Your task to perform on an android device: What is the news today? Image 0: 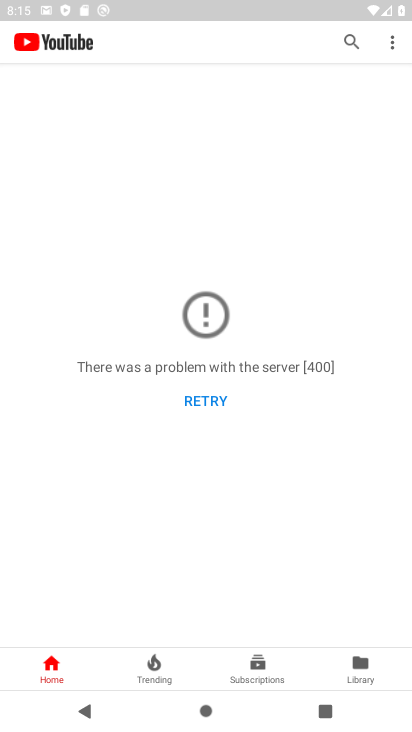
Step 0: press home button
Your task to perform on an android device: What is the news today? Image 1: 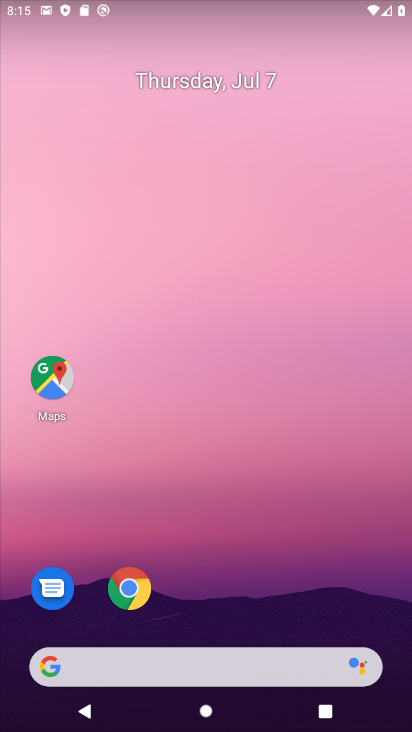
Step 1: click (238, 672)
Your task to perform on an android device: What is the news today? Image 2: 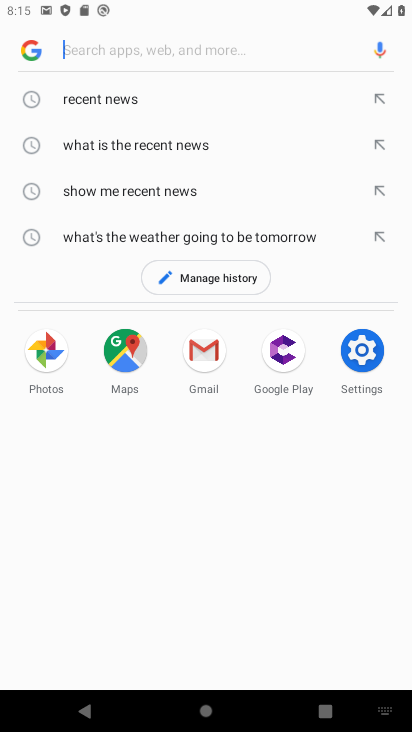
Step 2: type "news today"
Your task to perform on an android device: What is the news today? Image 3: 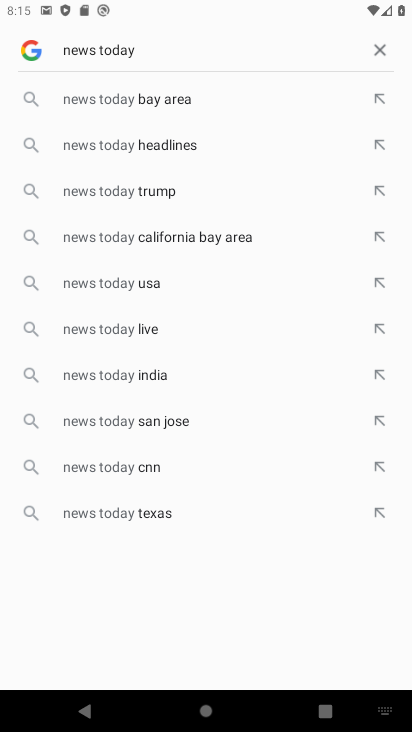
Step 3: press enter
Your task to perform on an android device: What is the news today? Image 4: 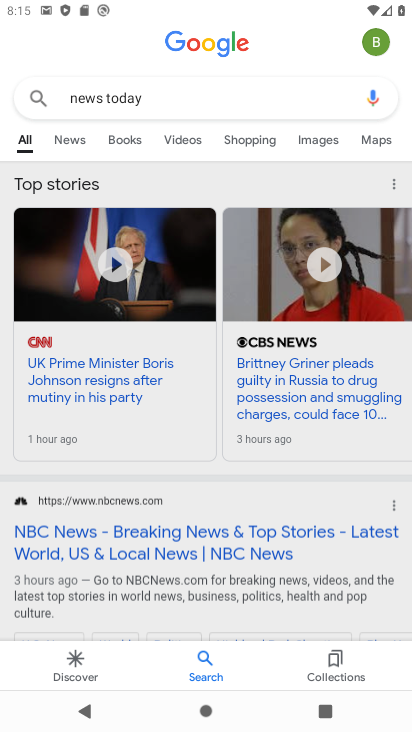
Step 4: click (79, 143)
Your task to perform on an android device: What is the news today? Image 5: 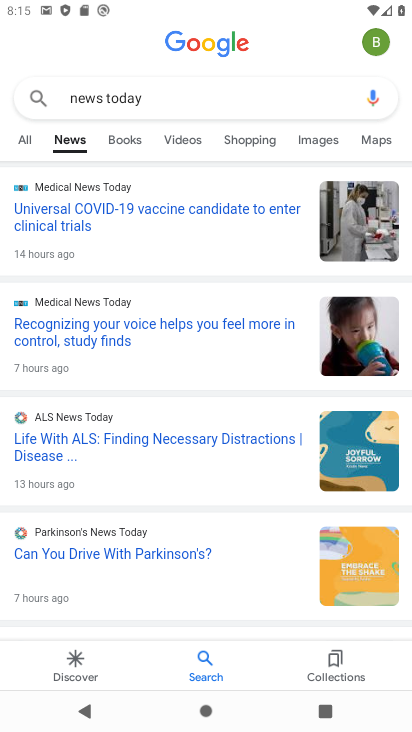
Step 5: task complete